Your task to perform on an android device: Turn on the flashlight Image 0: 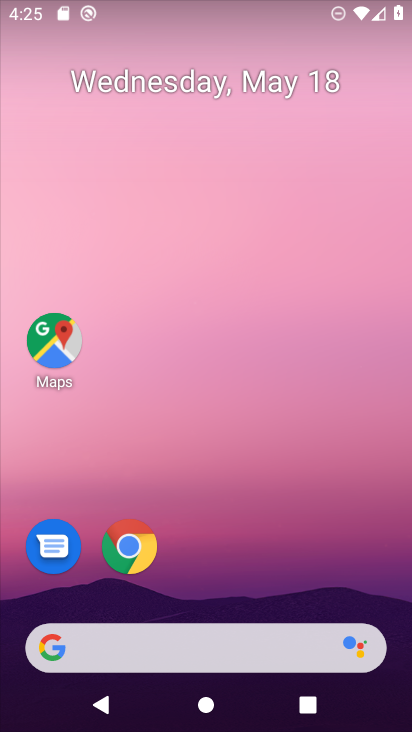
Step 0: drag from (225, 593) to (221, 54)
Your task to perform on an android device: Turn on the flashlight Image 1: 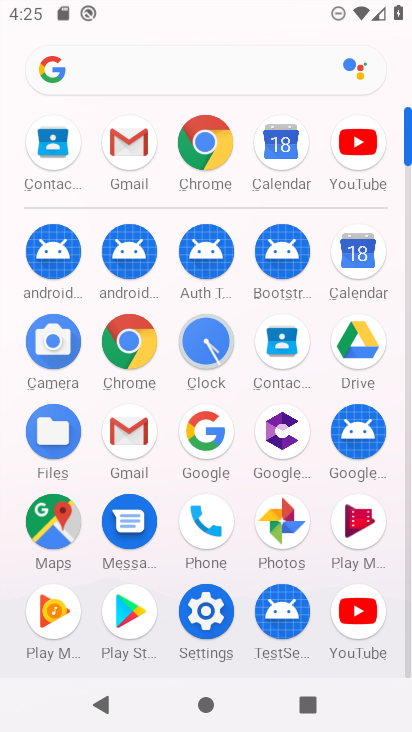
Step 1: click (200, 611)
Your task to perform on an android device: Turn on the flashlight Image 2: 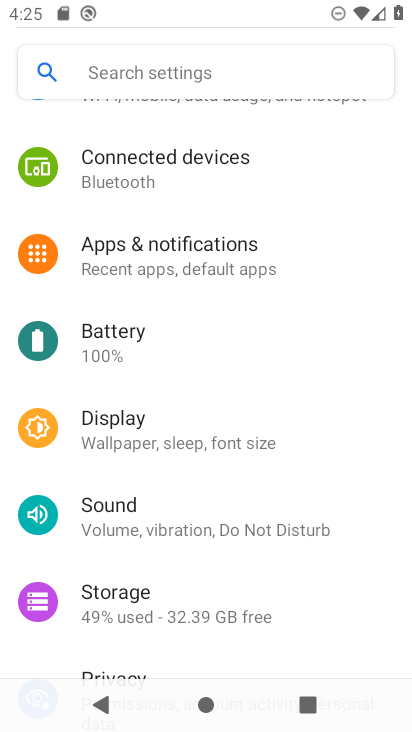
Step 2: drag from (286, 163) to (312, 610)
Your task to perform on an android device: Turn on the flashlight Image 3: 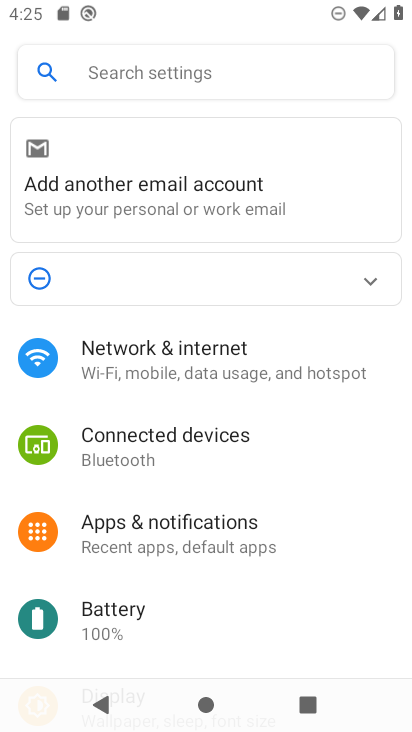
Step 3: click (210, 73)
Your task to perform on an android device: Turn on the flashlight Image 4: 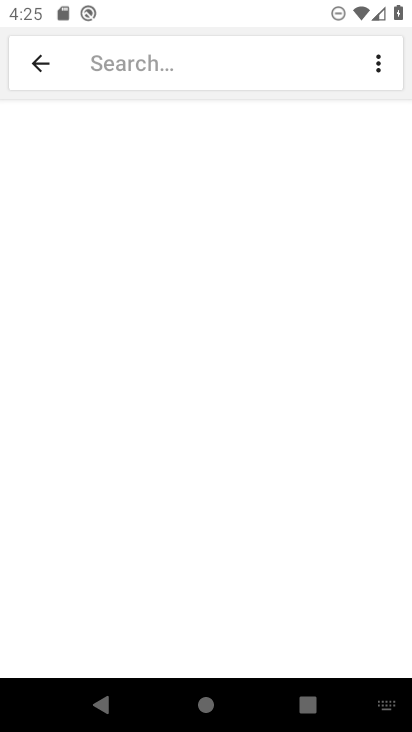
Step 4: type "flashlight"
Your task to perform on an android device: Turn on the flashlight Image 5: 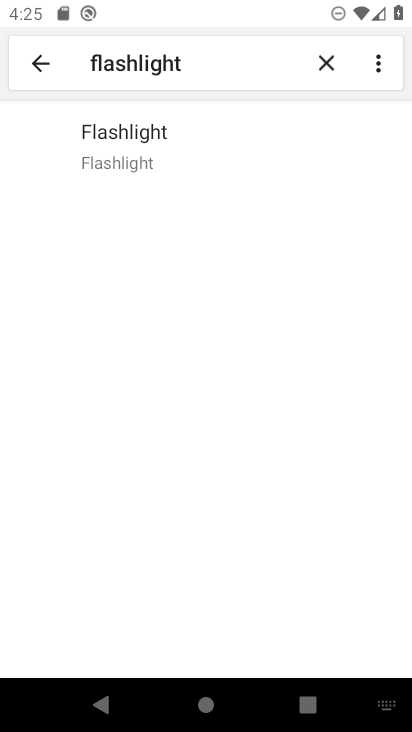
Step 5: click (180, 155)
Your task to perform on an android device: Turn on the flashlight Image 6: 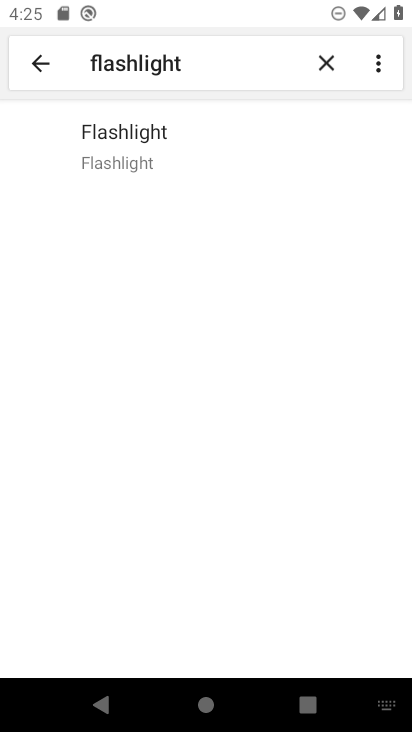
Step 6: task complete